Your task to perform on an android device: empty trash in the gmail app Image 0: 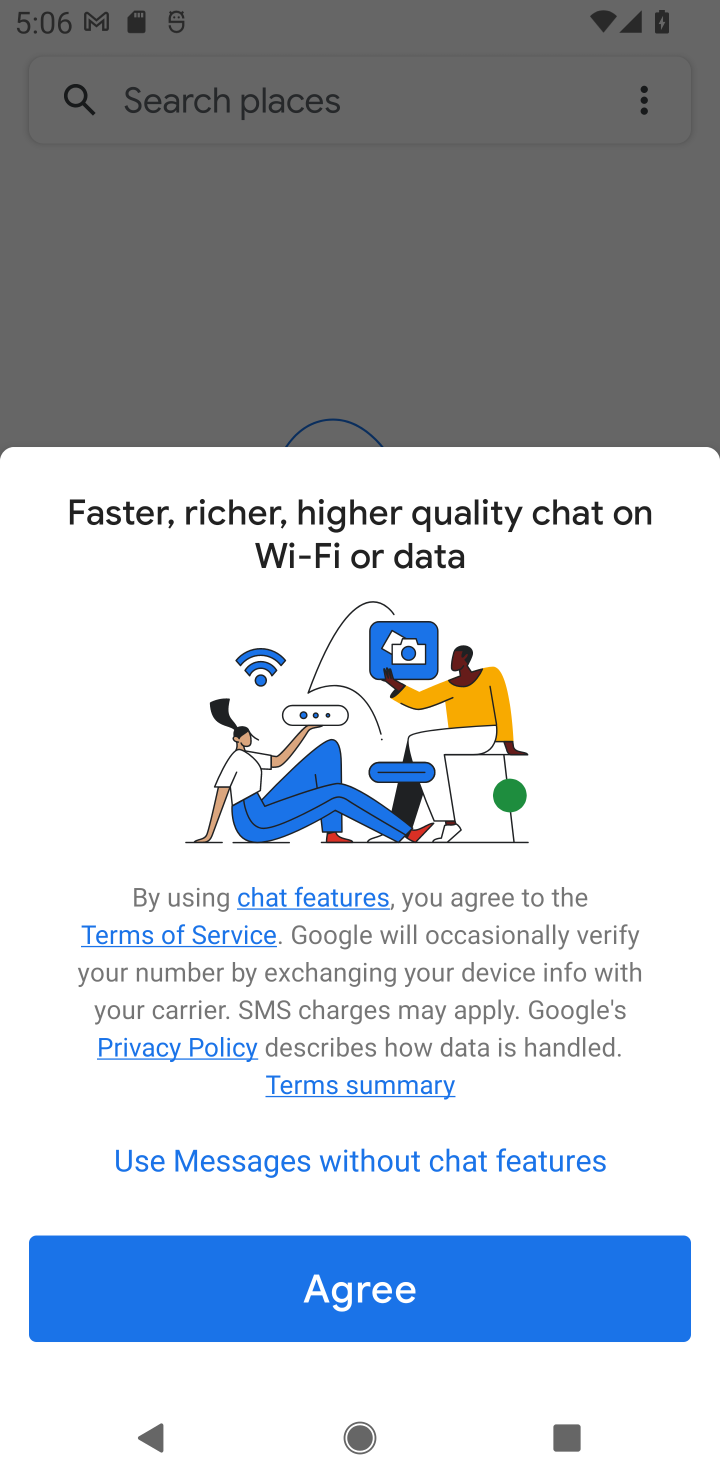
Step 0: press home button
Your task to perform on an android device: empty trash in the gmail app Image 1: 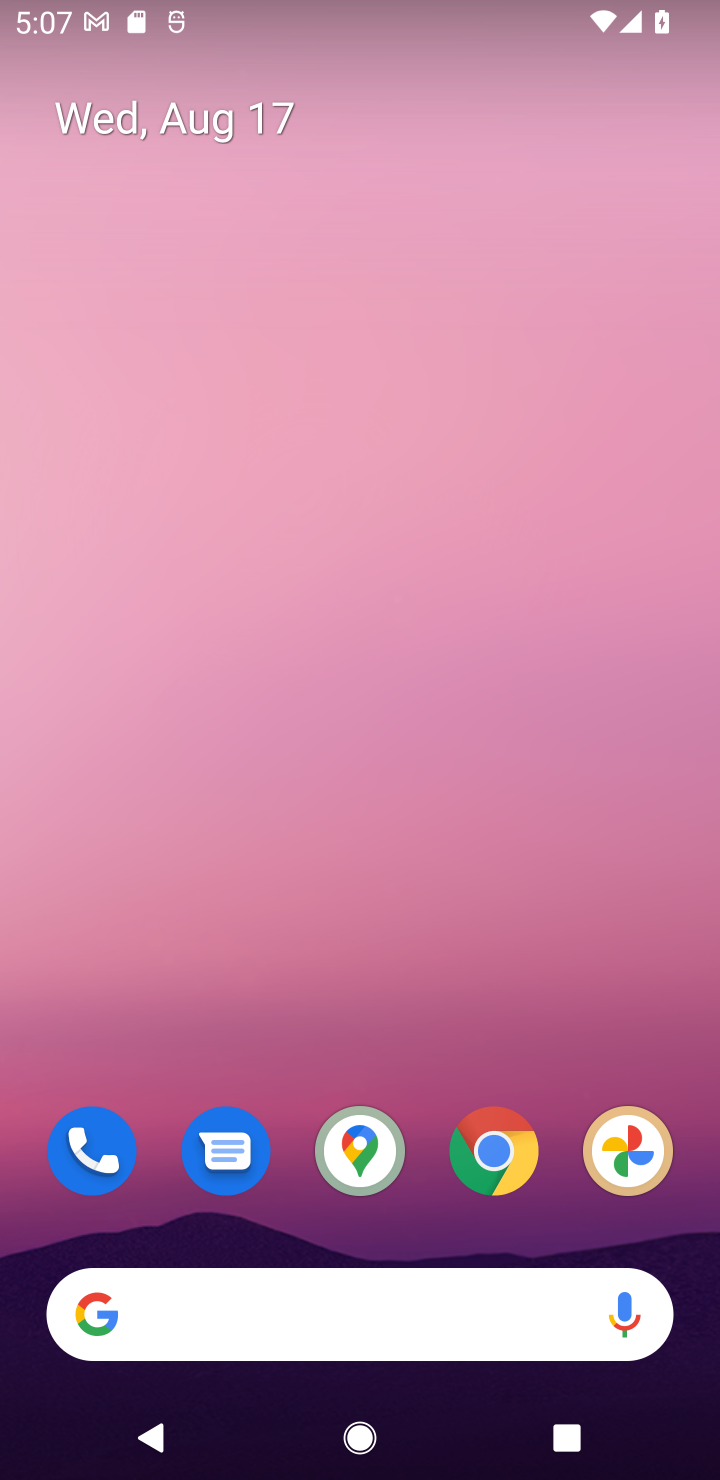
Step 1: drag from (572, 1250) to (544, 266)
Your task to perform on an android device: empty trash in the gmail app Image 2: 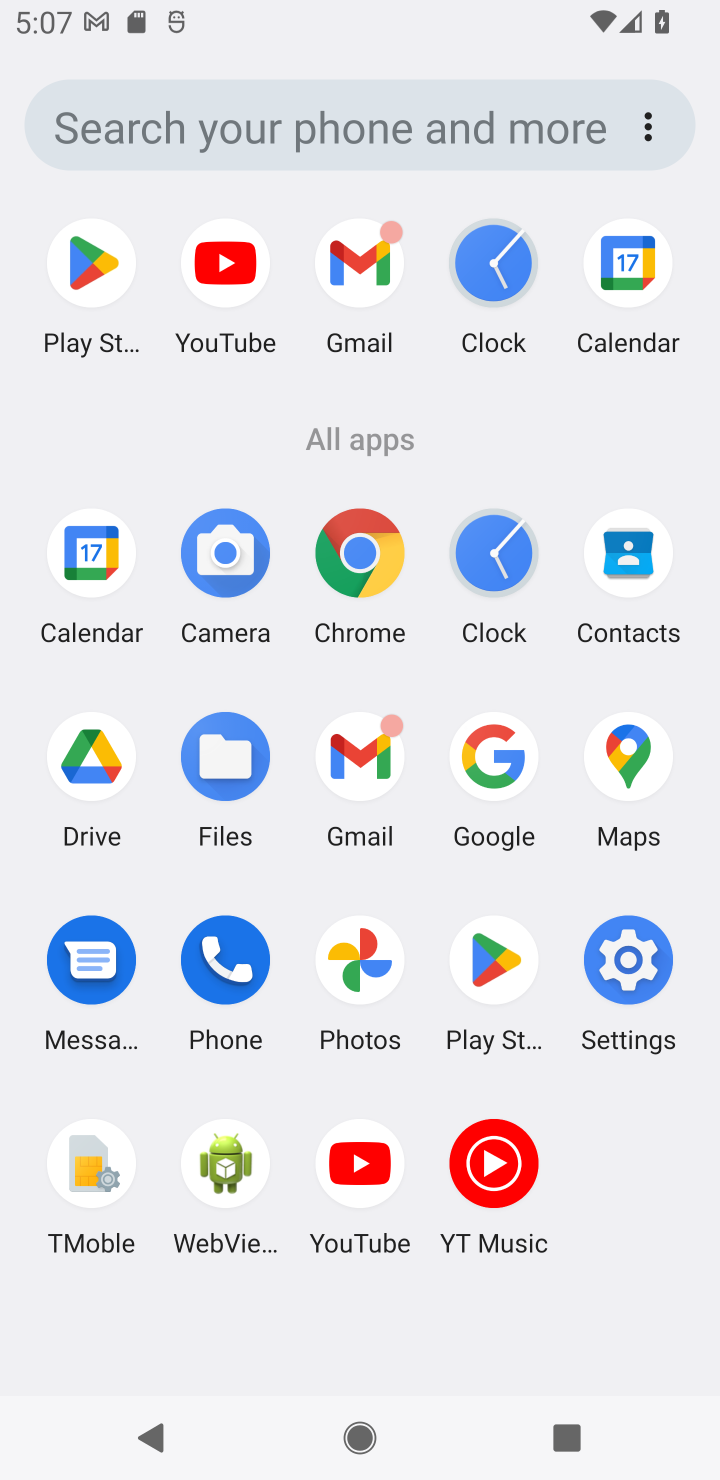
Step 2: click (365, 755)
Your task to perform on an android device: empty trash in the gmail app Image 3: 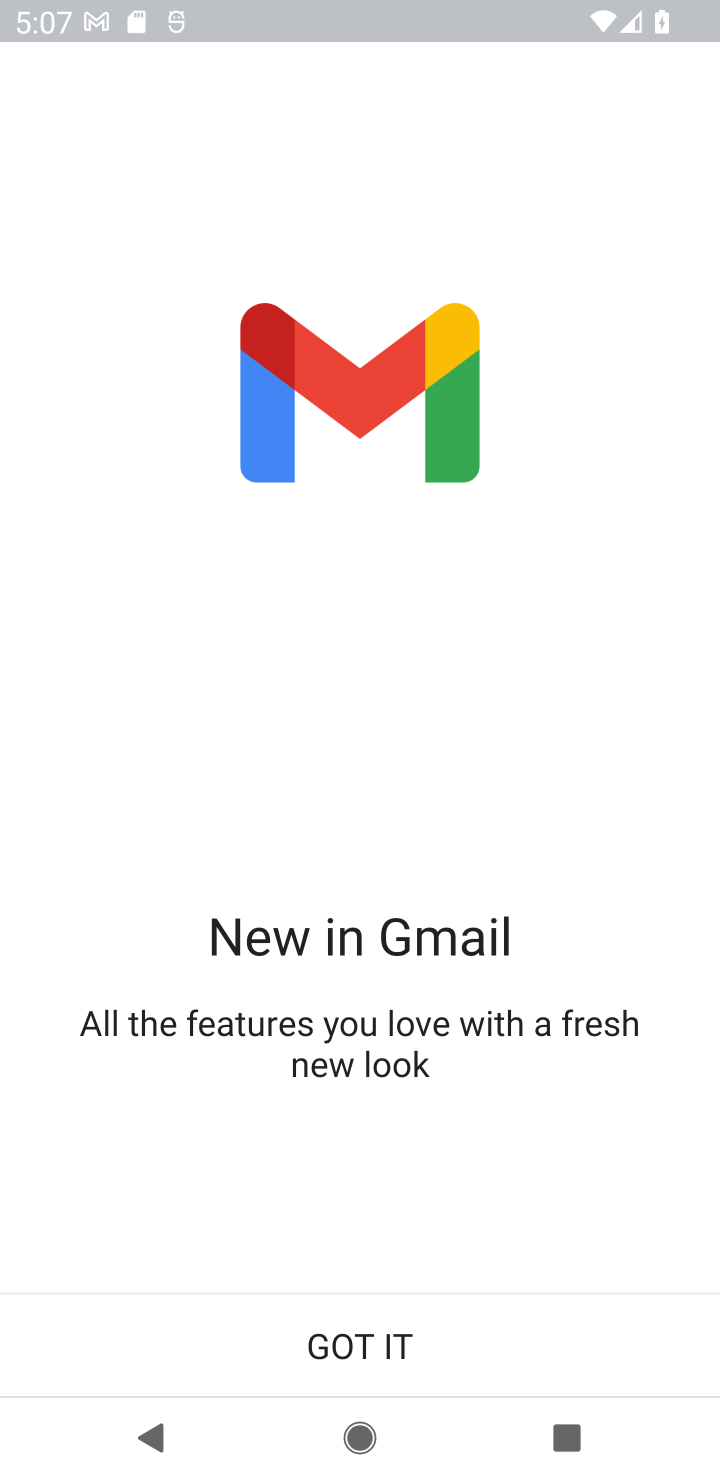
Step 3: click (354, 1332)
Your task to perform on an android device: empty trash in the gmail app Image 4: 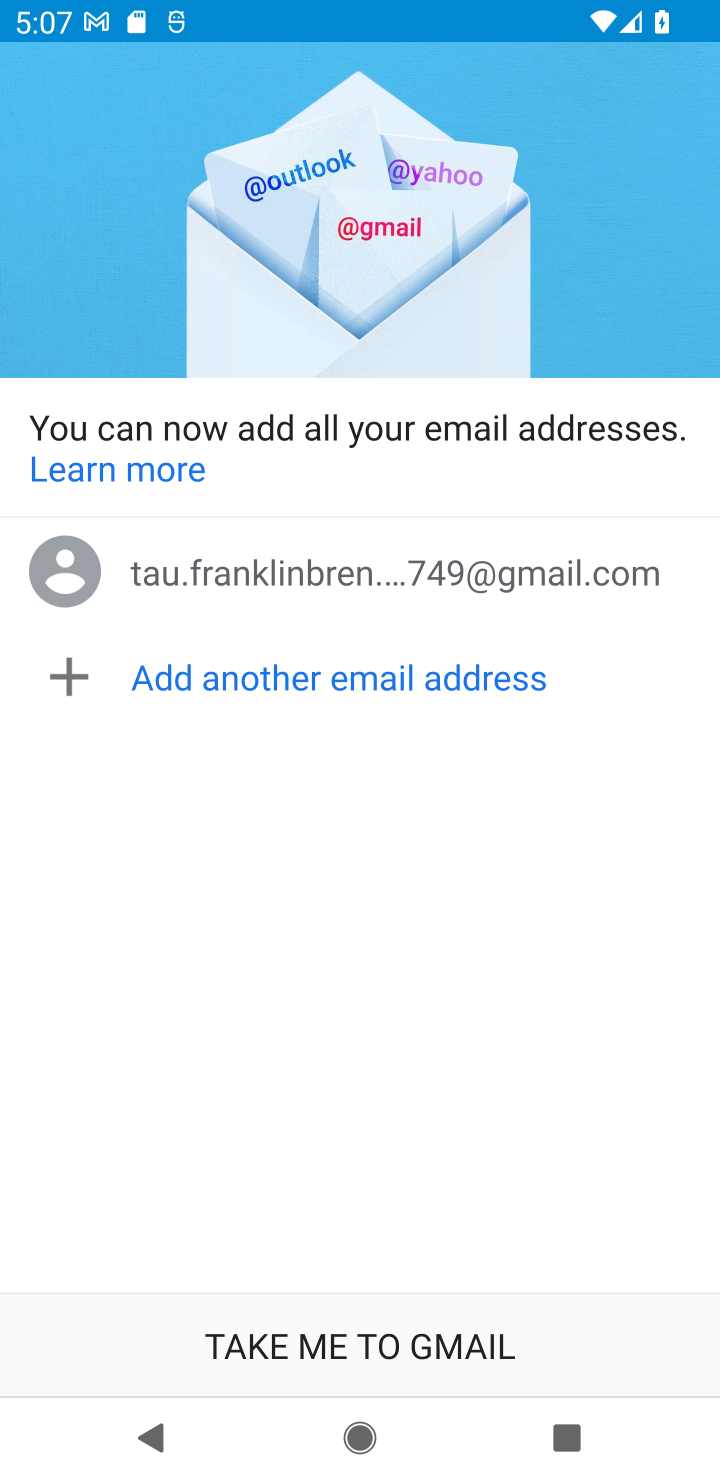
Step 4: click (354, 1332)
Your task to perform on an android device: empty trash in the gmail app Image 5: 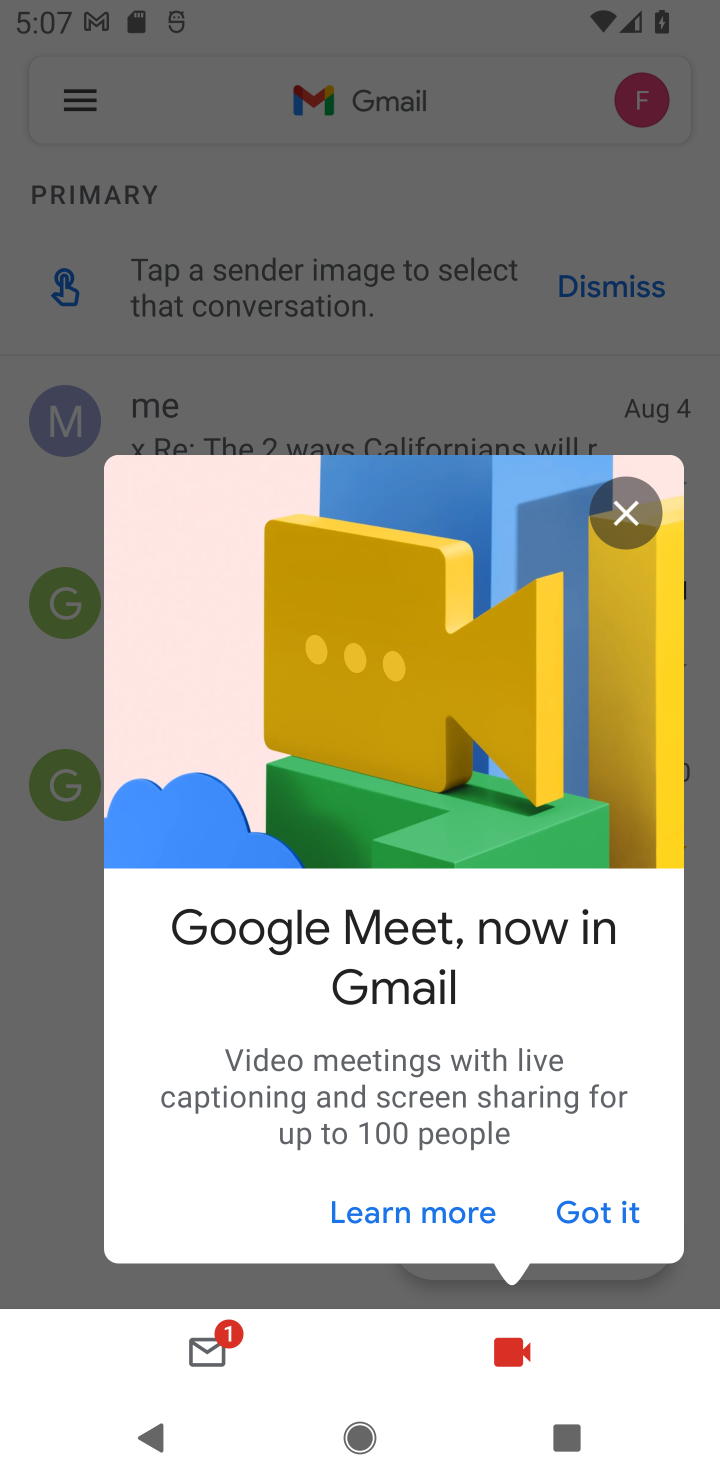
Step 5: click (632, 516)
Your task to perform on an android device: empty trash in the gmail app Image 6: 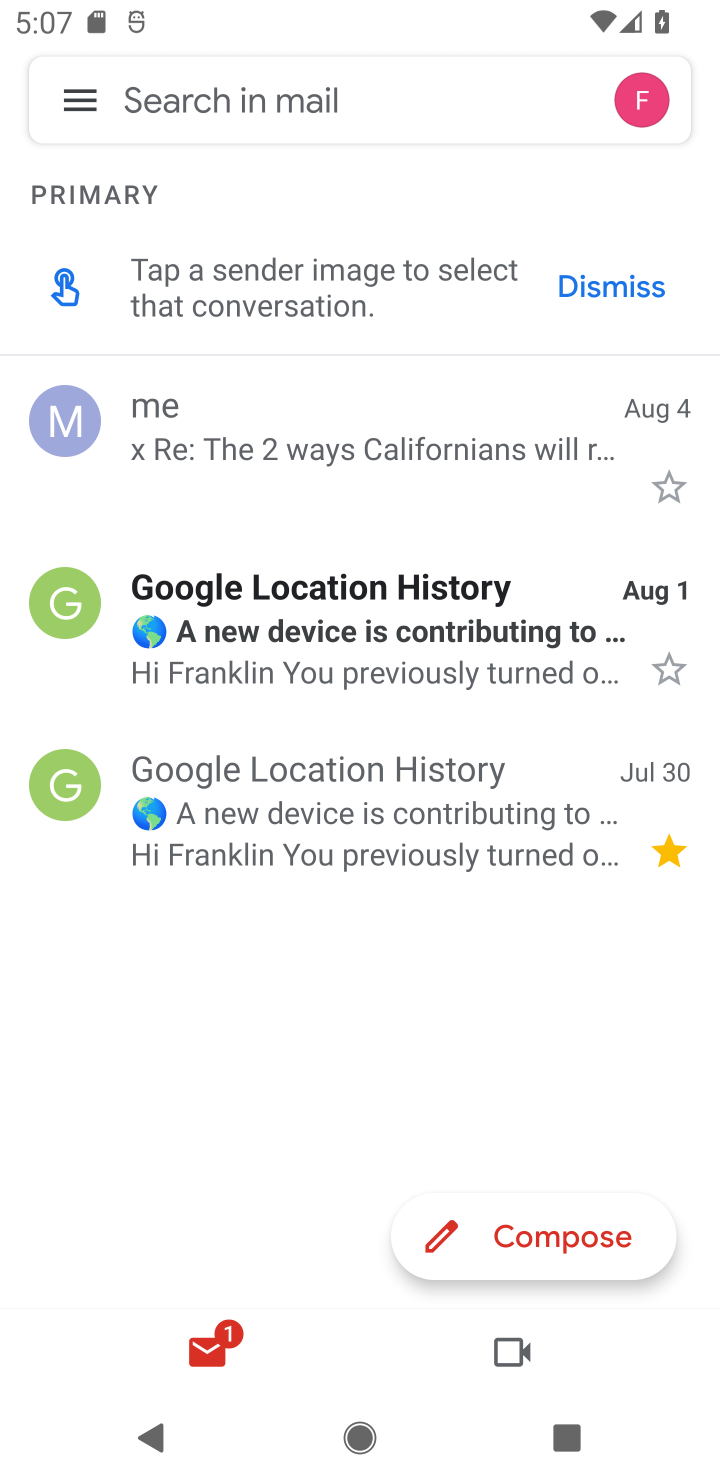
Step 6: click (78, 102)
Your task to perform on an android device: empty trash in the gmail app Image 7: 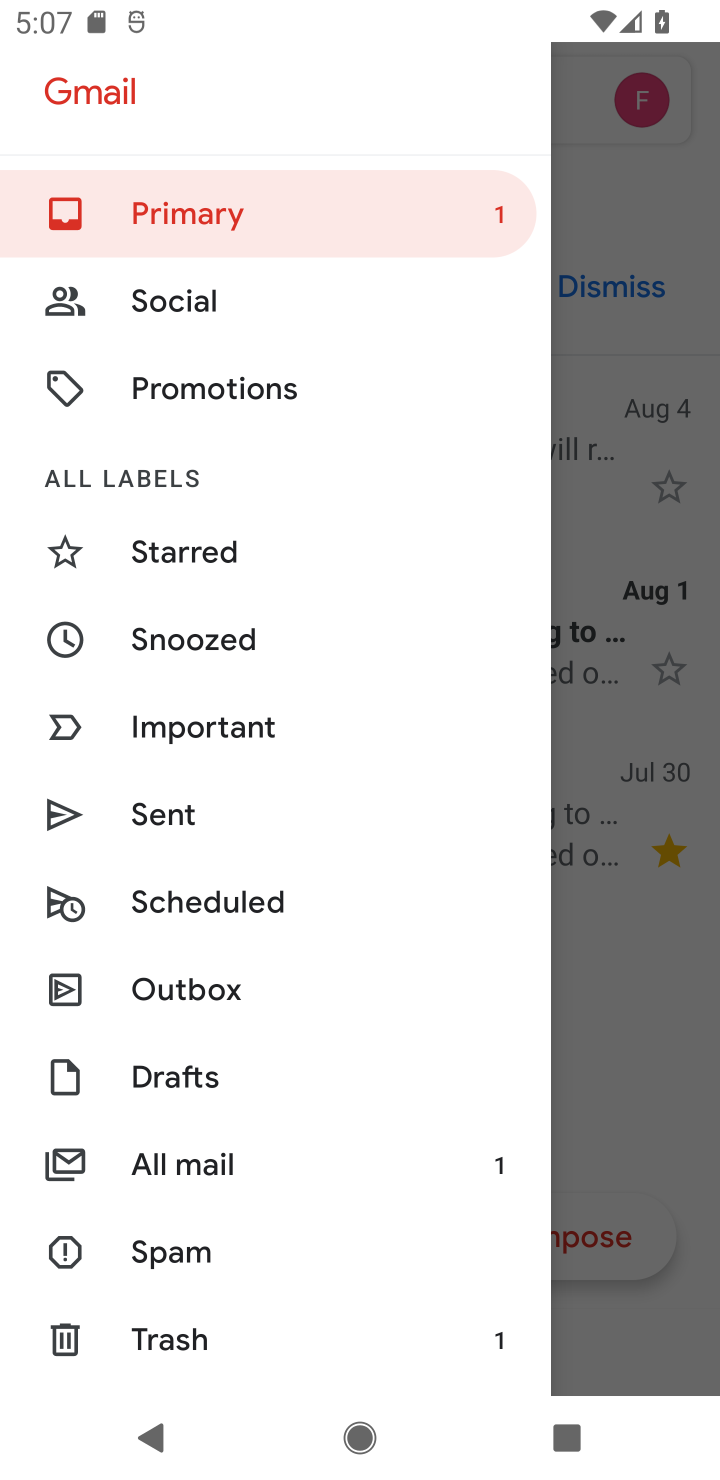
Step 7: drag from (282, 1315) to (315, 754)
Your task to perform on an android device: empty trash in the gmail app Image 8: 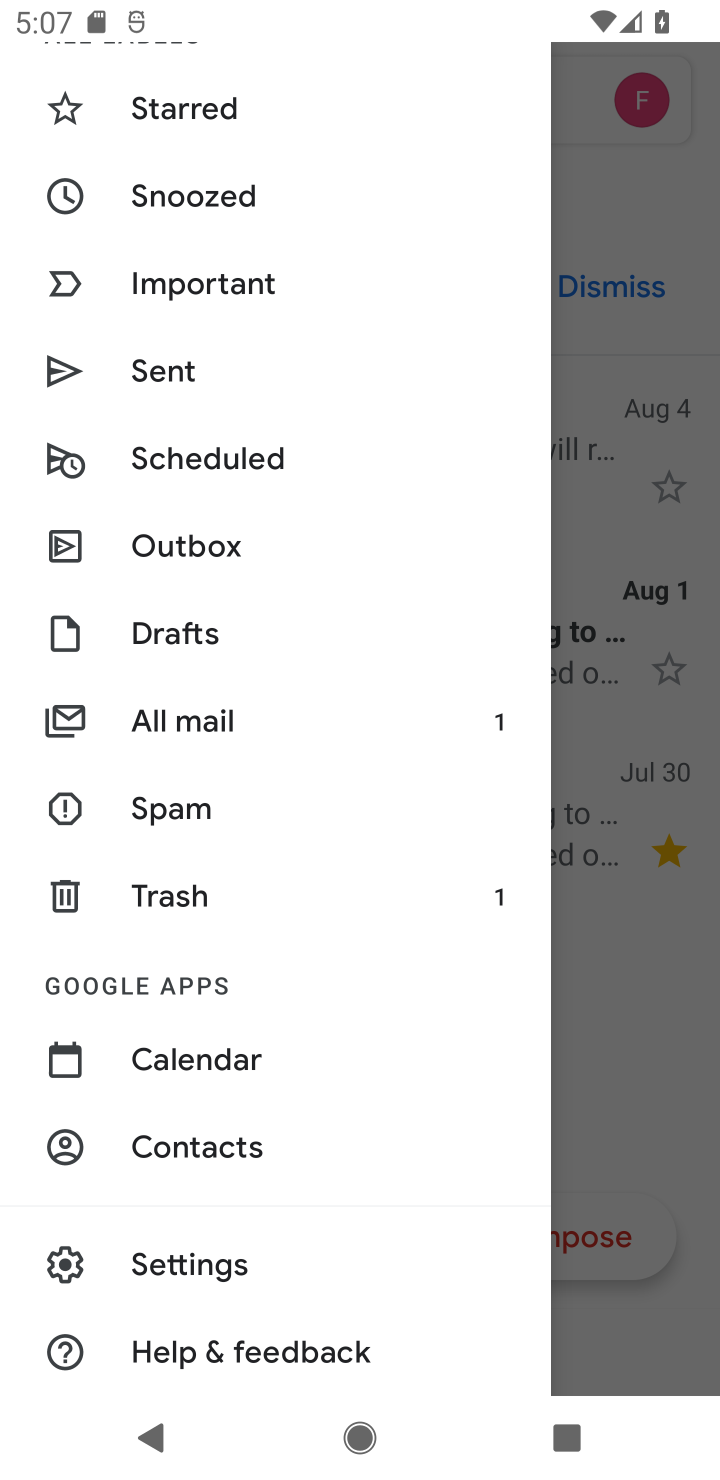
Step 8: click (164, 889)
Your task to perform on an android device: empty trash in the gmail app Image 9: 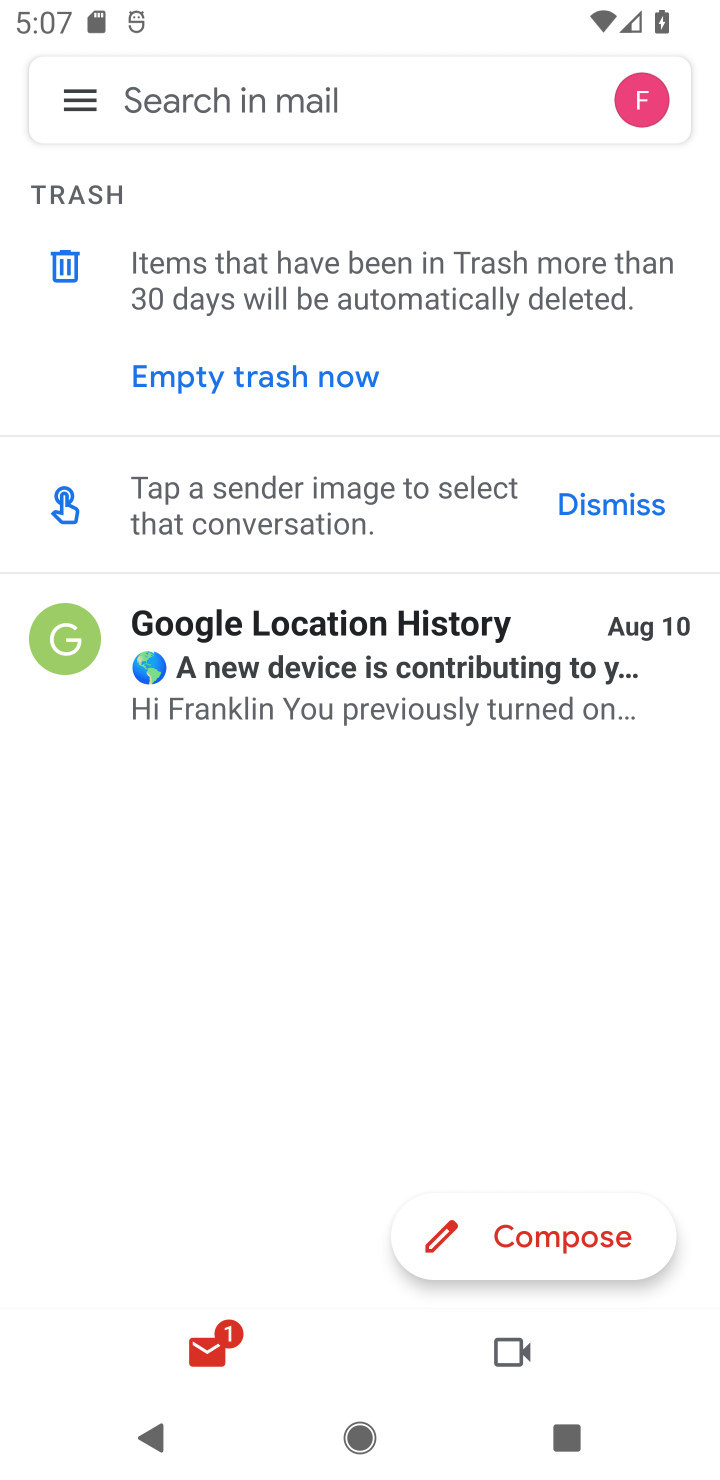
Step 9: click (245, 371)
Your task to perform on an android device: empty trash in the gmail app Image 10: 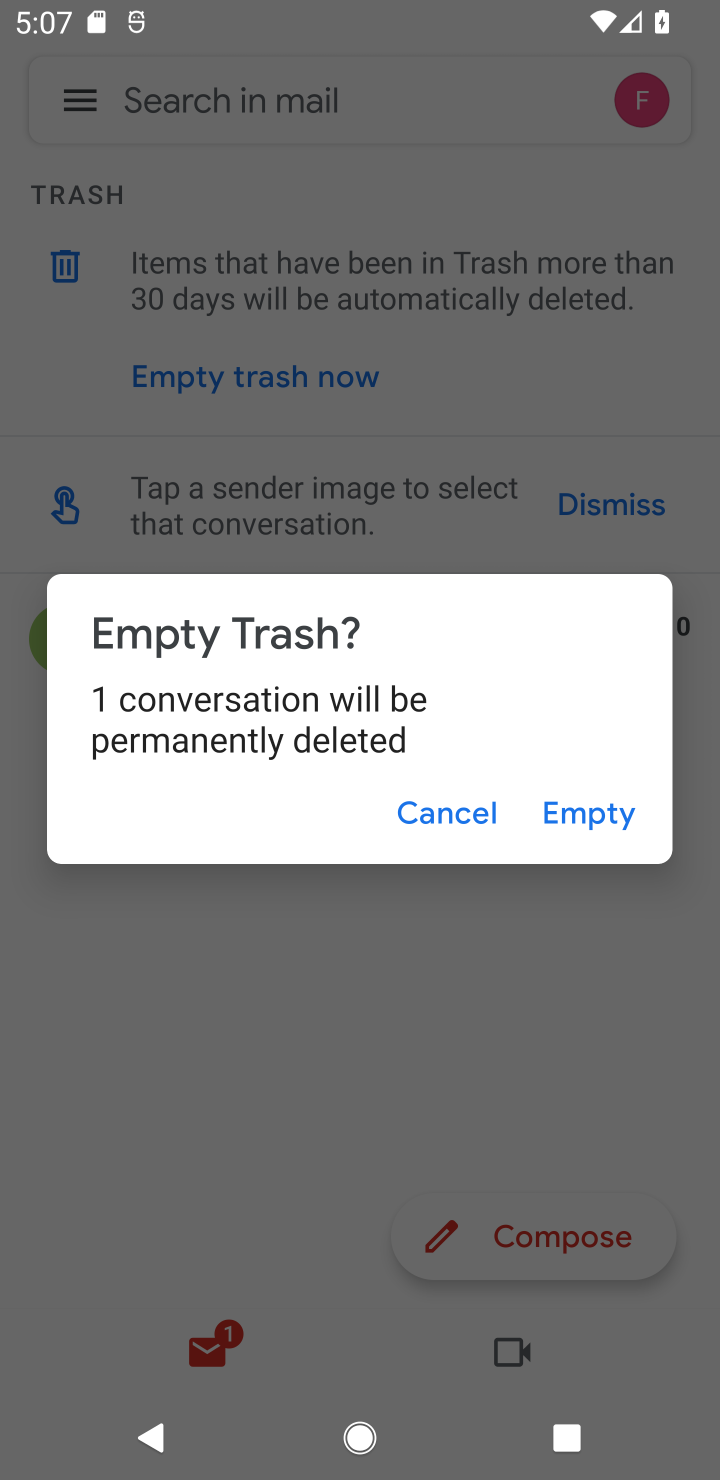
Step 10: click (585, 802)
Your task to perform on an android device: empty trash in the gmail app Image 11: 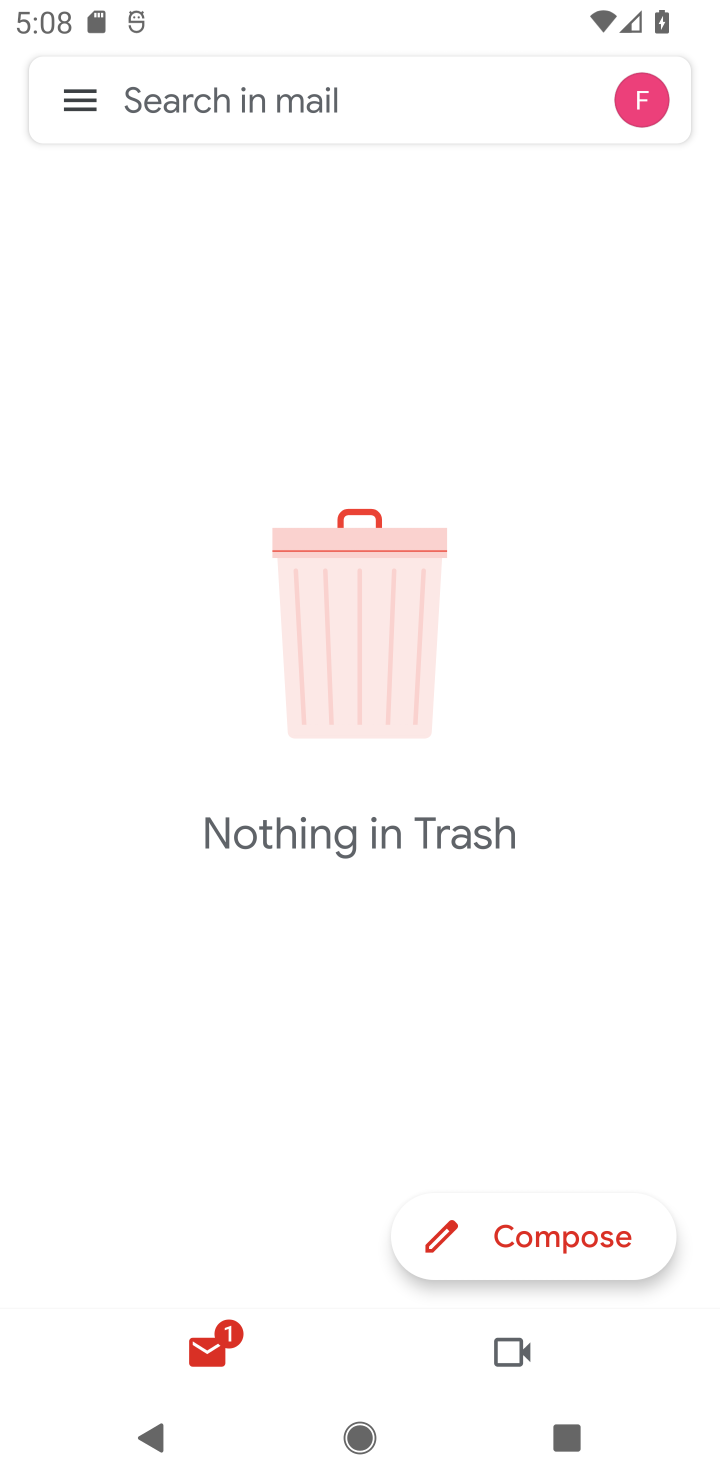
Step 11: task complete